Your task to perform on an android device: Do I have any events today? Image 0: 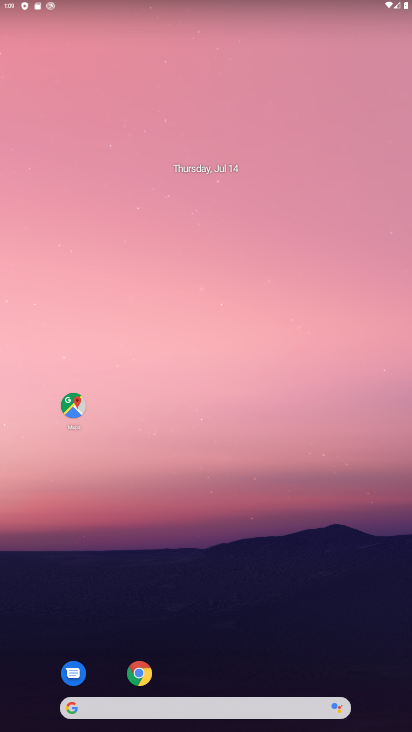
Step 0: drag from (302, 648) to (301, 183)
Your task to perform on an android device: Do I have any events today? Image 1: 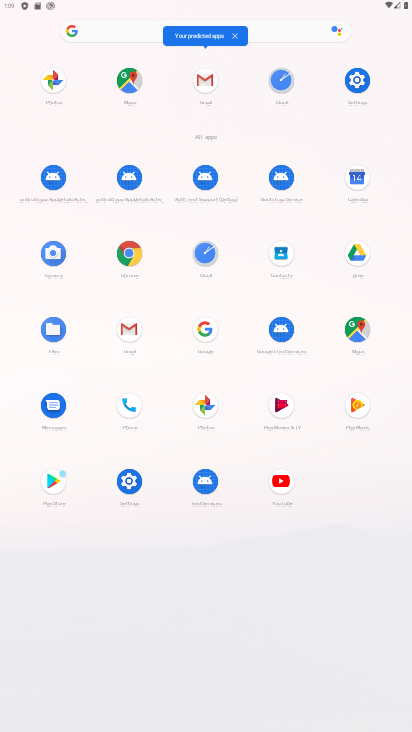
Step 1: click (352, 179)
Your task to perform on an android device: Do I have any events today? Image 2: 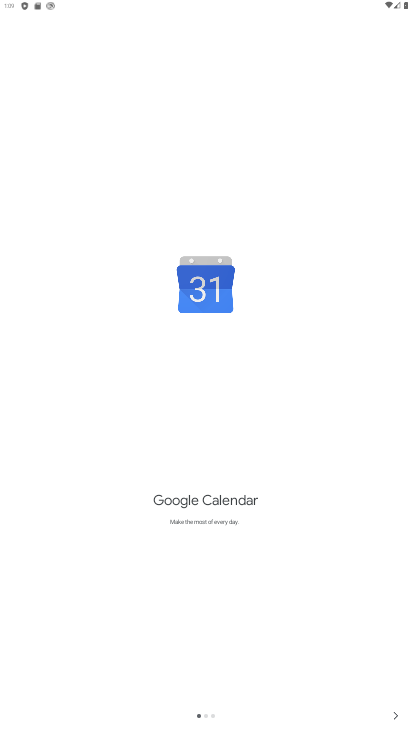
Step 2: click (395, 717)
Your task to perform on an android device: Do I have any events today? Image 3: 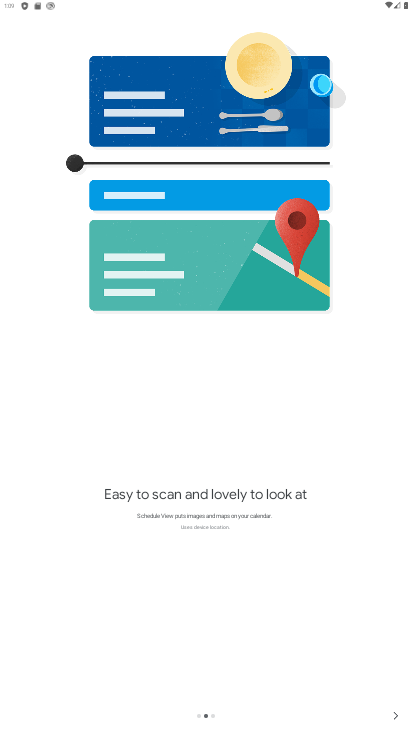
Step 3: click (395, 717)
Your task to perform on an android device: Do I have any events today? Image 4: 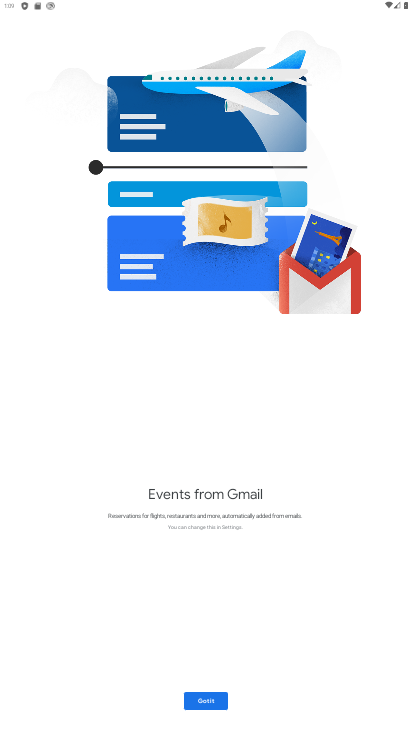
Step 4: click (205, 691)
Your task to perform on an android device: Do I have any events today? Image 5: 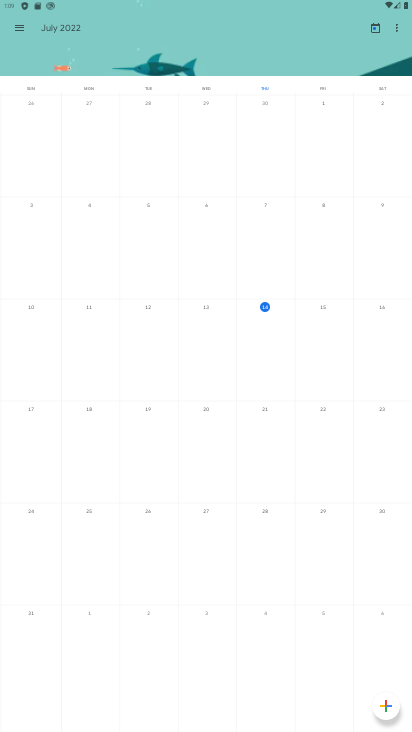
Step 5: click (273, 313)
Your task to perform on an android device: Do I have any events today? Image 6: 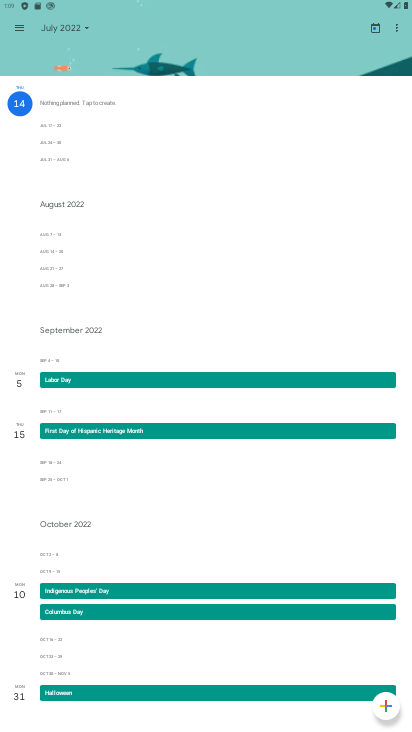
Step 6: task complete